Your task to perform on an android device: Go to internet settings Image 0: 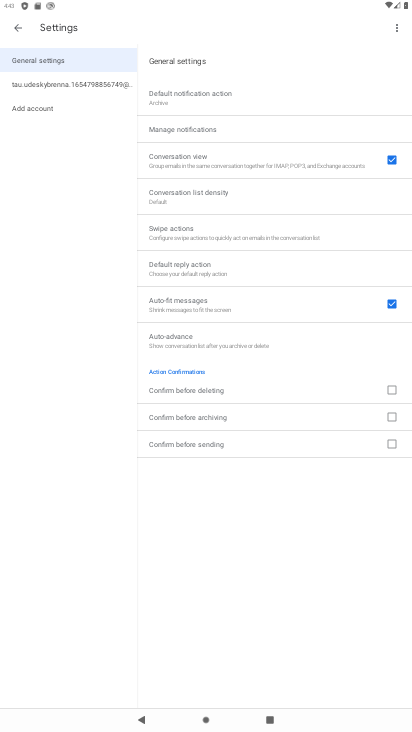
Step 0: press home button
Your task to perform on an android device: Go to internet settings Image 1: 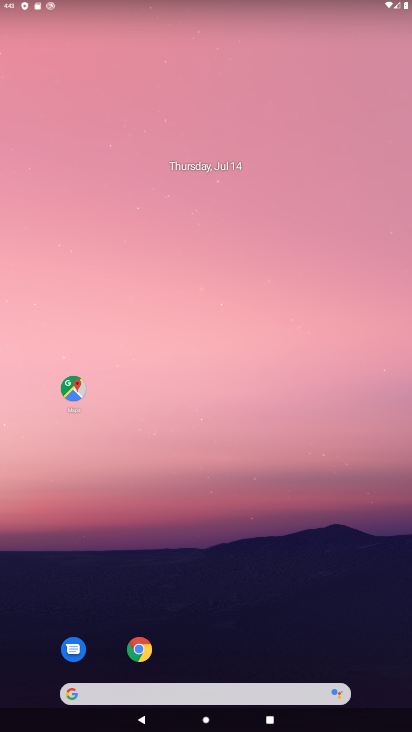
Step 1: drag from (302, 663) to (309, 1)
Your task to perform on an android device: Go to internet settings Image 2: 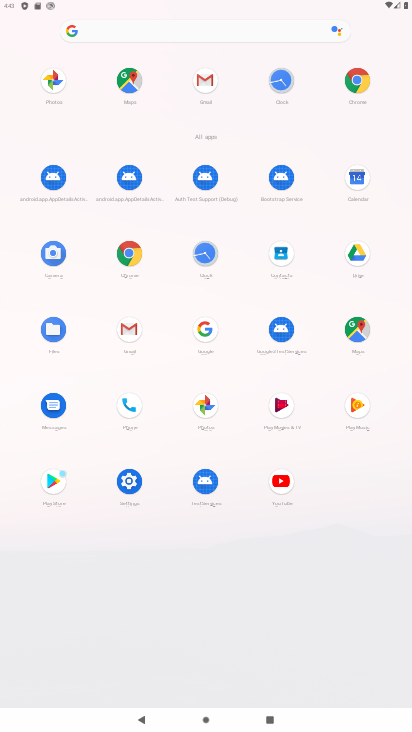
Step 2: click (134, 490)
Your task to perform on an android device: Go to internet settings Image 3: 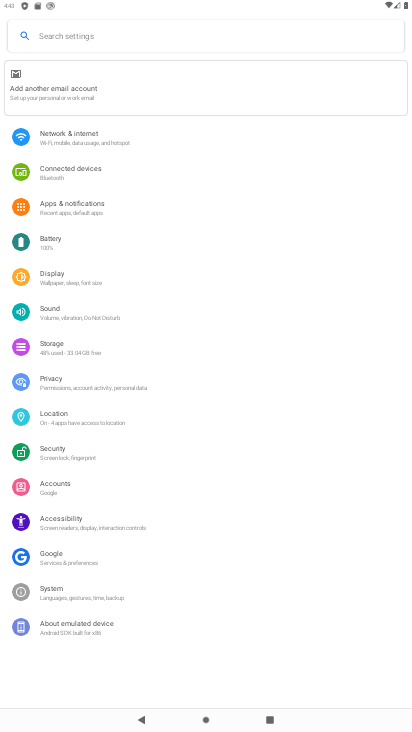
Step 3: click (96, 138)
Your task to perform on an android device: Go to internet settings Image 4: 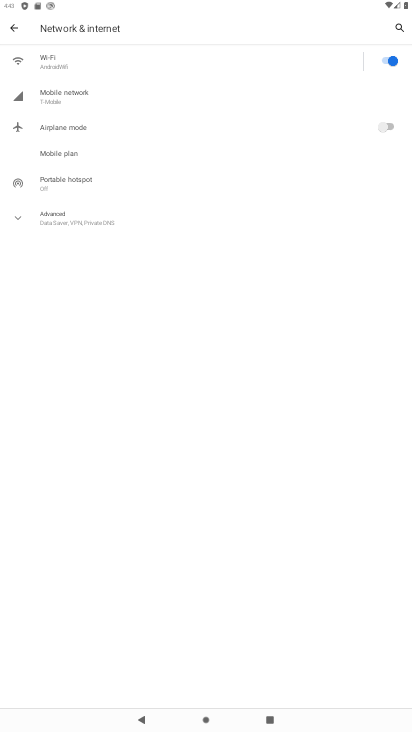
Step 4: task complete